Your task to perform on an android device: When is my next meeting? Image 0: 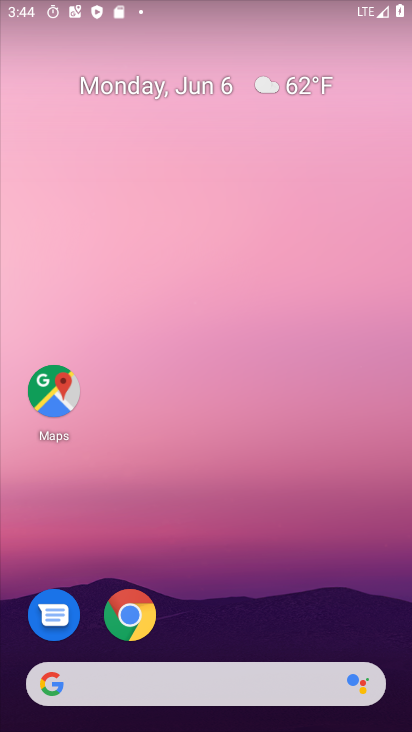
Step 0: drag from (291, 698) to (305, 141)
Your task to perform on an android device: When is my next meeting? Image 1: 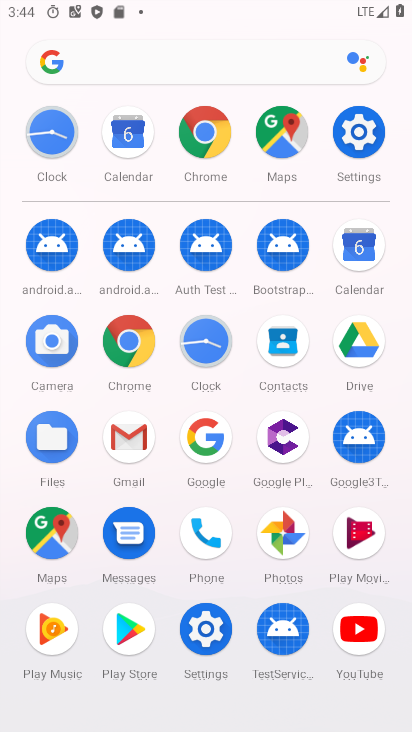
Step 1: click (357, 249)
Your task to perform on an android device: When is my next meeting? Image 2: 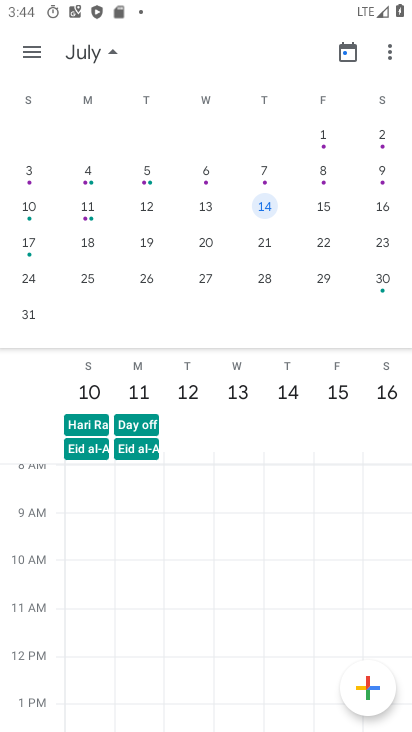
Step 2: drag from (93, 224) to (359, 220)
Your task to perform on an android device: When is my next meeting? Image 3: 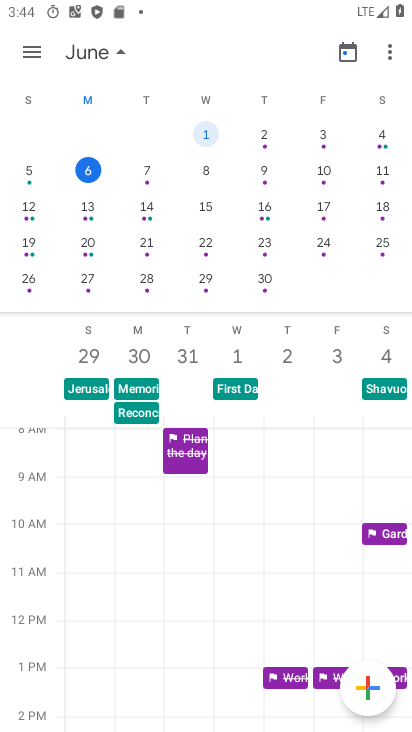
Step 3: click (143, 172)
Your task to perform on an android device: When is my next meeting? Image 4: 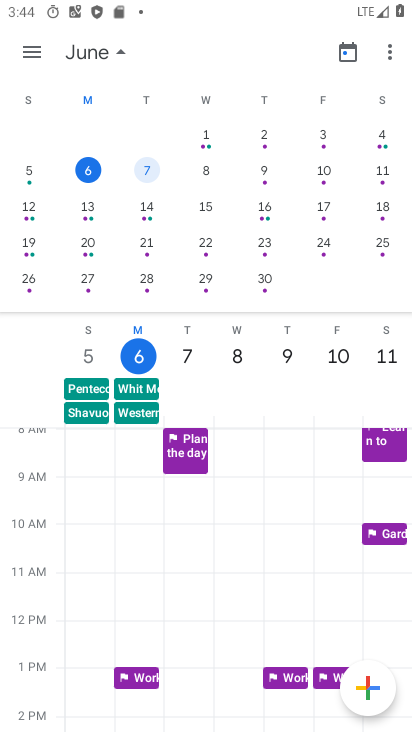
Step 4: task complete